Your task to perform on an android device: Search for logitech g pro on amazon, select the first entry, and add it to the cart. Image 0: 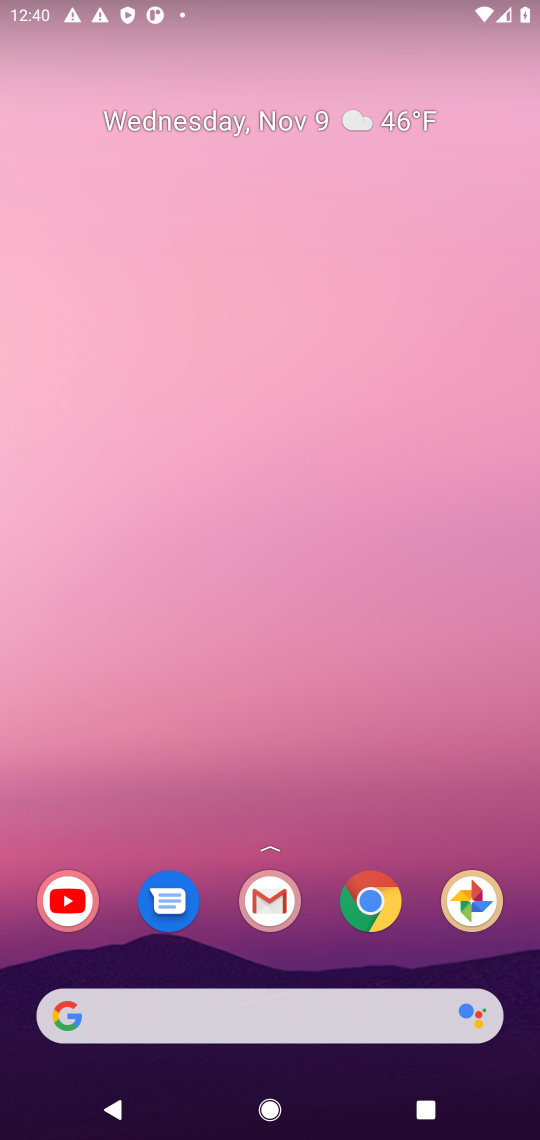
Step 0: click (386, 906)
Your task to perform on an android device: Search for logitech g pro on amazon, select the first entry, and add it to the cart. Image 1: 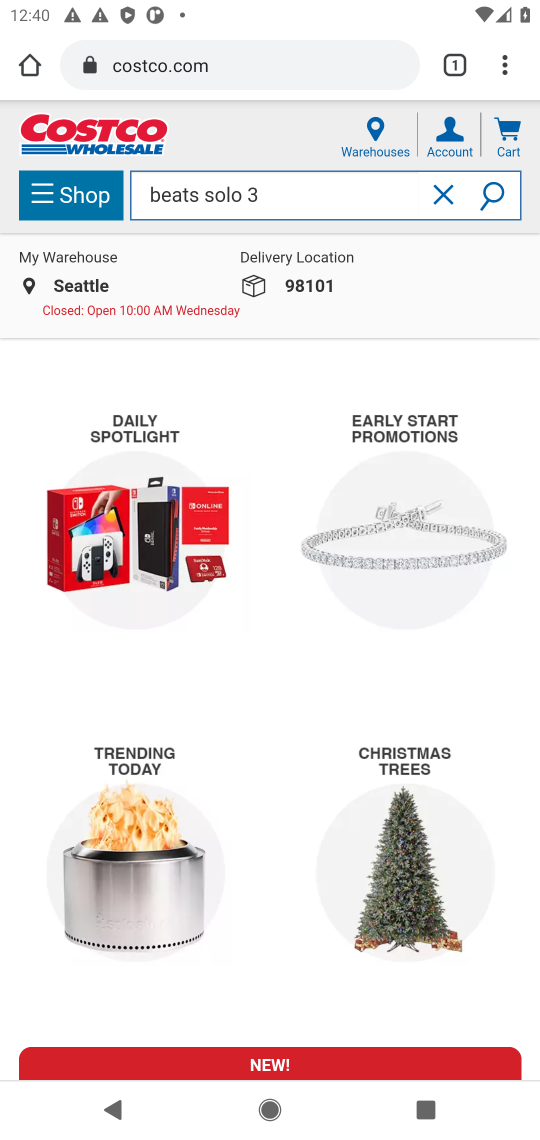
Step 1: click (234, 67)
Your task to perform on an android device: Search for logitech g pro on amazon, select the first entry, and add it to the cart. Image 2: 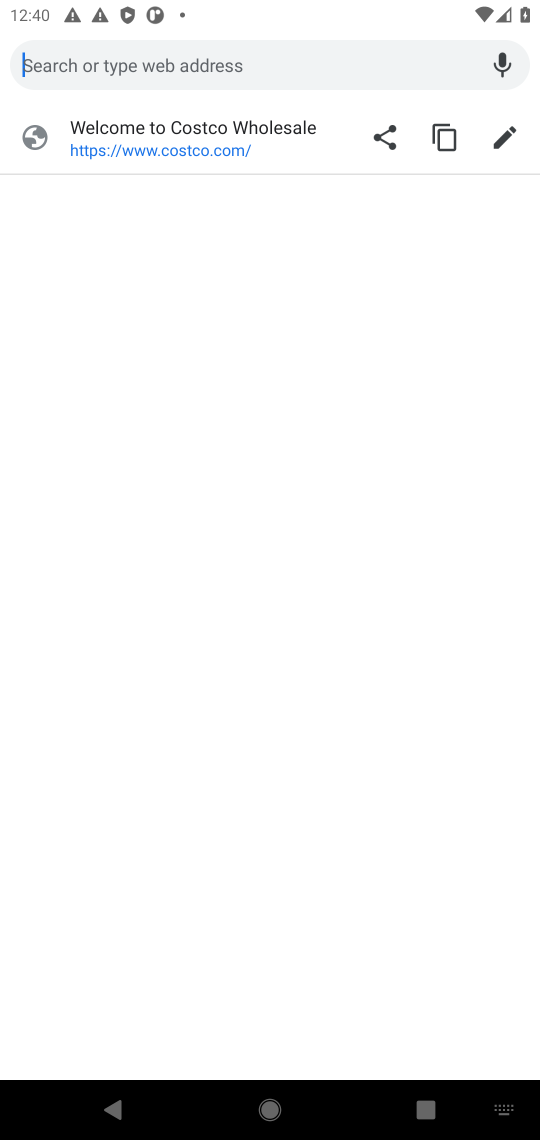
Step 2: type "amazon"
Your task to perform on an android device: Search for logitech g pro on amazon, select the first entry, and add it to the cart. Image 3: 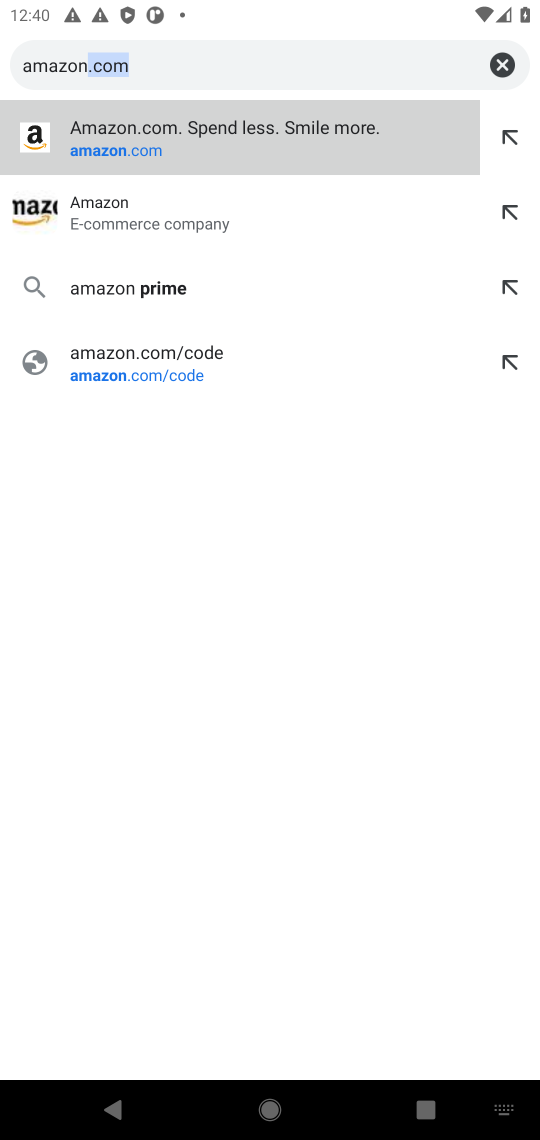
Step 3: click (242, 71)
Your task to perform on an android device: Search for logitech g pro on amazon, select the first entry, and add it to the cart. Image 4: 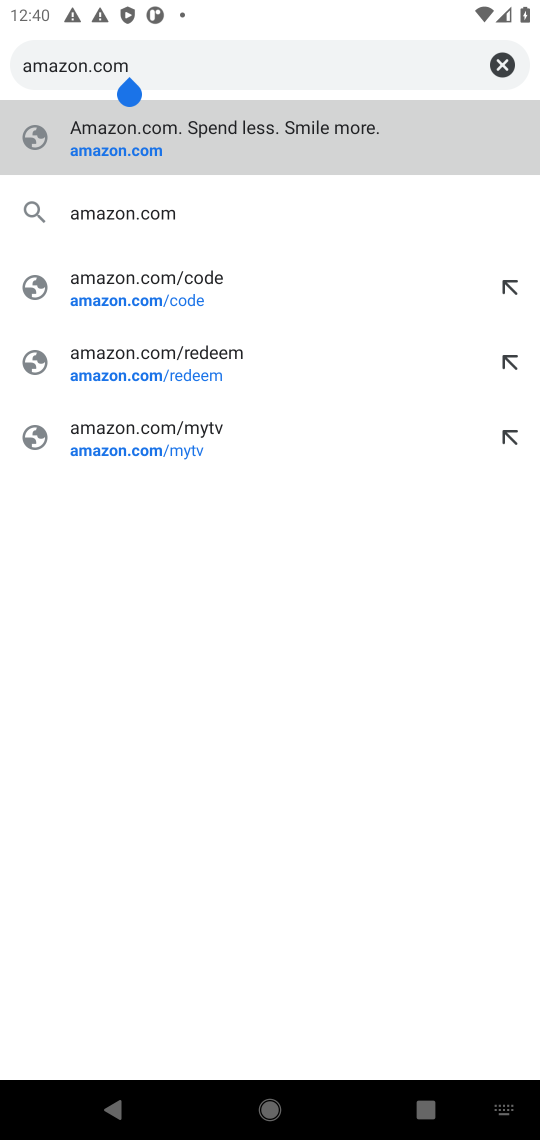
Step 4: click (168, 212)
Your task to perform on an android device: Search for logitech g pro on amazon, select the first entry, and add it to the cart. Image 5: 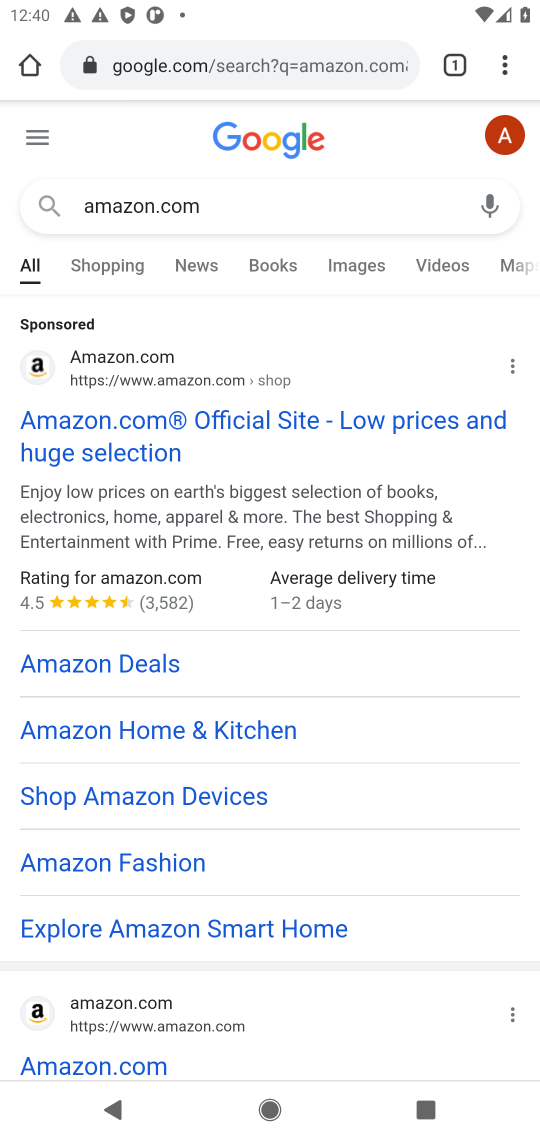
Step 5: click (136, 363)
Your task to perform on an android device: Search for logitech g pro on amazon, select the first entry, and add it to the cart. Image 6: 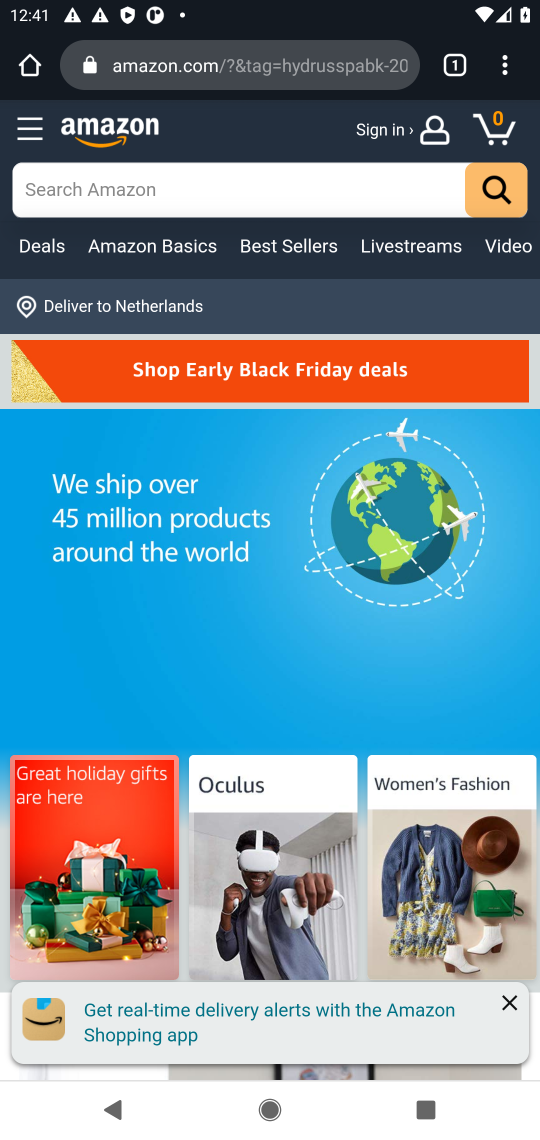
Step 6: click (286, 191)
Your task to perform on an android device: Search for logitech g pro on amazon, select the first entry, and add it to the cart. Image 7: 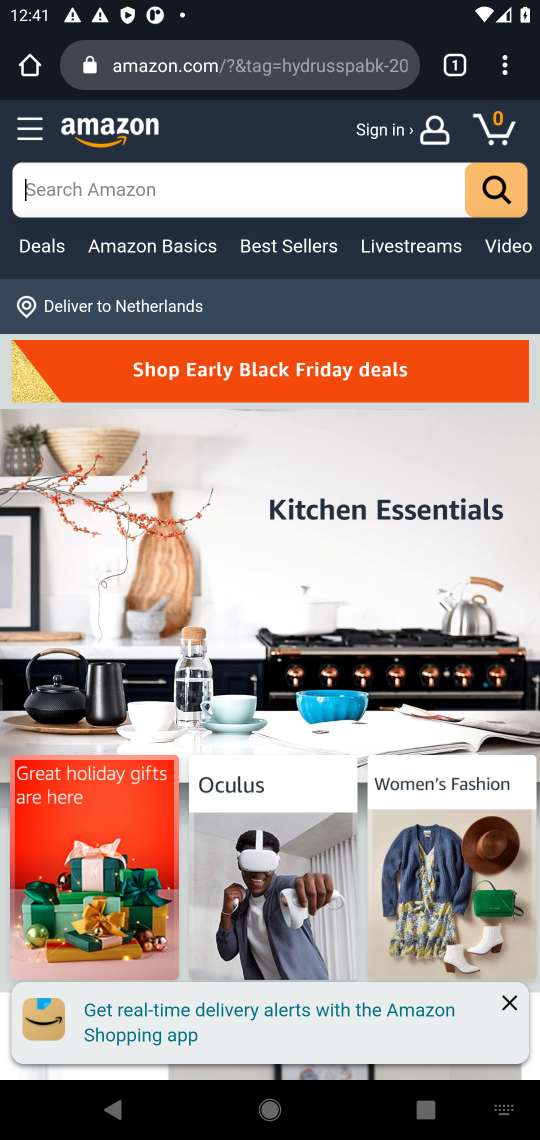
Step 7: type "logitech g pro"
Your task to perform on an android device: Search for logitech g pro on amazon, select the first entry, and add it to the cart. Image 8: 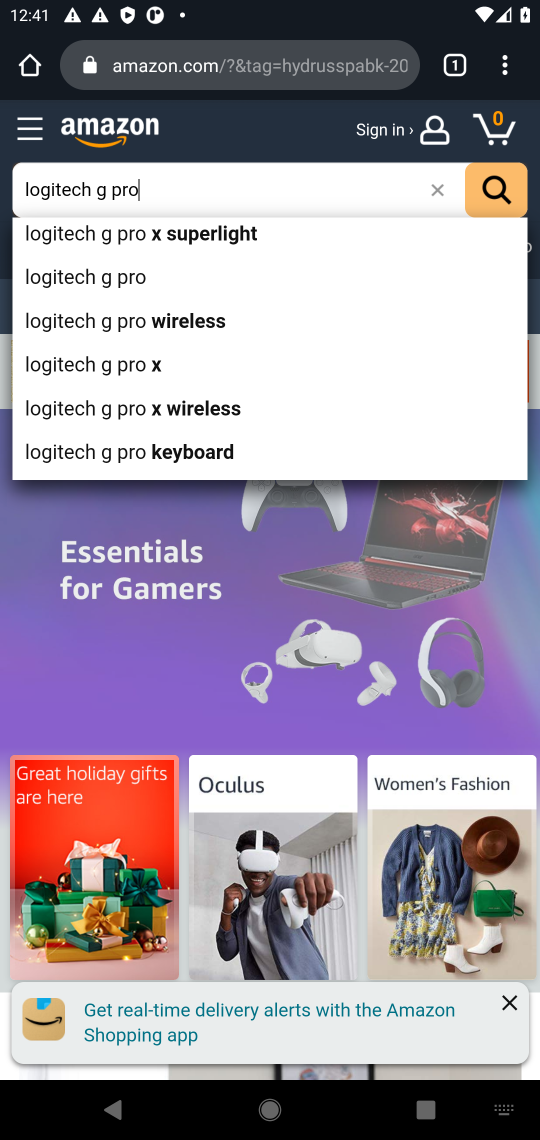
Step 8: press enter
Your task to perform on an android device: Search for logitech g pro on amazon, select the first entry, and add it to the cart. Image 9: 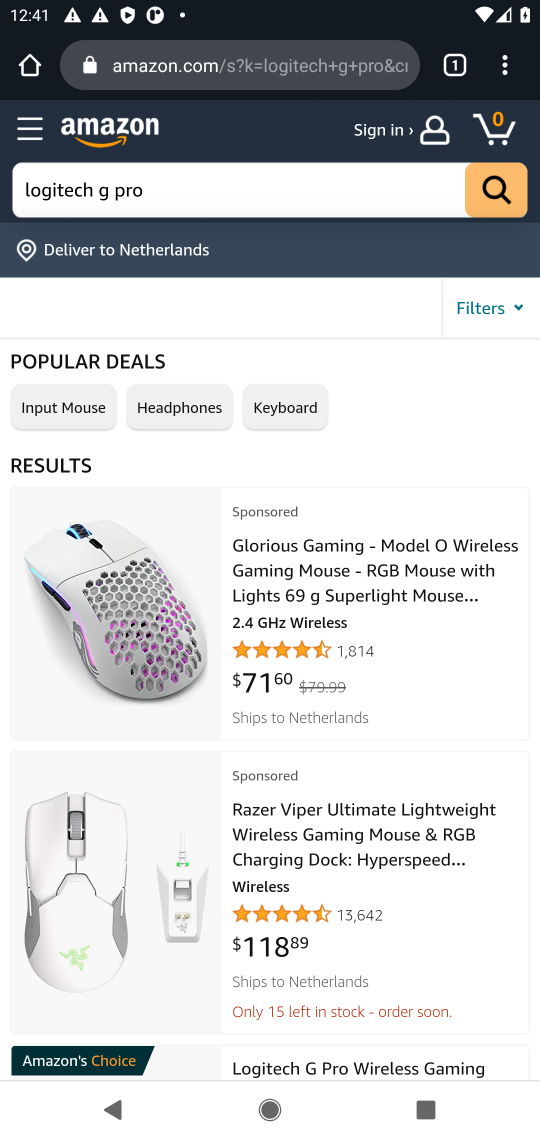
Step 9: drag from (478, 931) to (462, 510)
Your task to perform on an android device: Search for logitech g pro on amazon, select the first entry, and add it to the cart. Image 10: 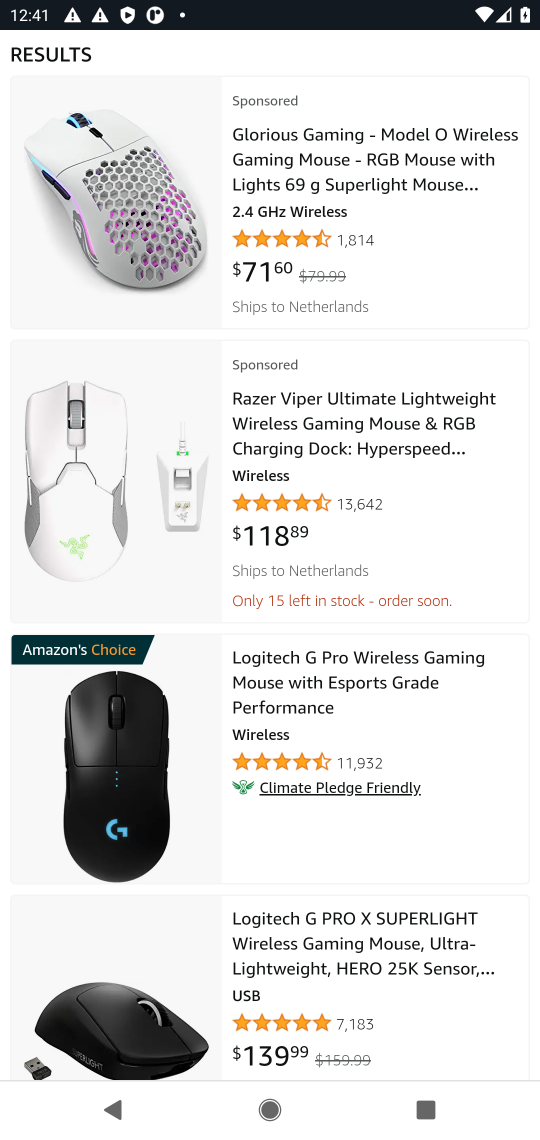
Step 10: click (115, 768)
Your task to perform on an android device: Search for logitech g pro on amazon, select the first entry, and add it to the cart. Image 11: 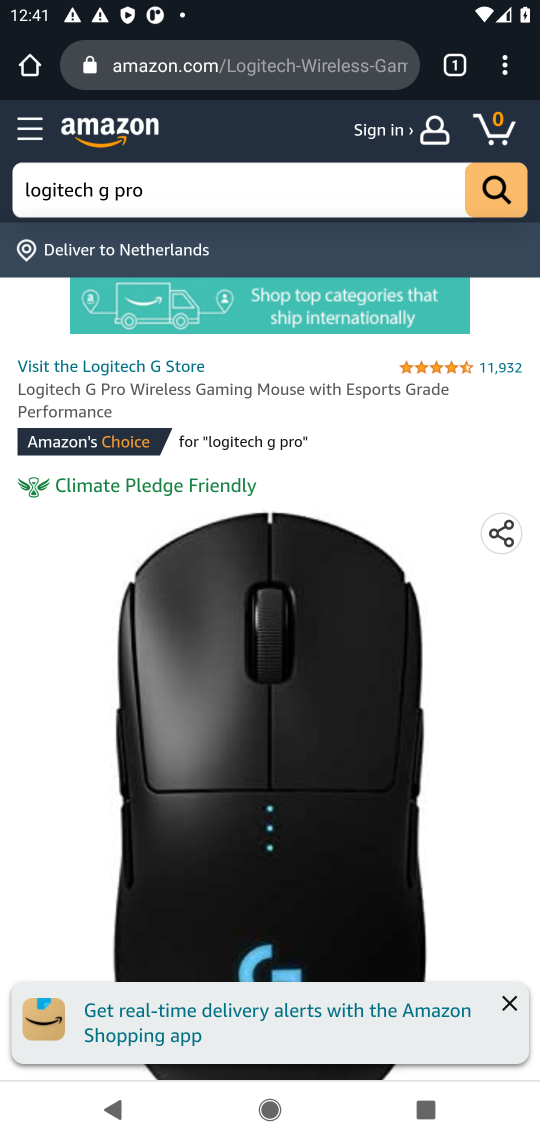
Step 11: drag from (426, 869) to (409, 294)
Your task to perform on an android device: Search for logitech g pro on amazon, select the first entry, and add it to the cart. Image 12: 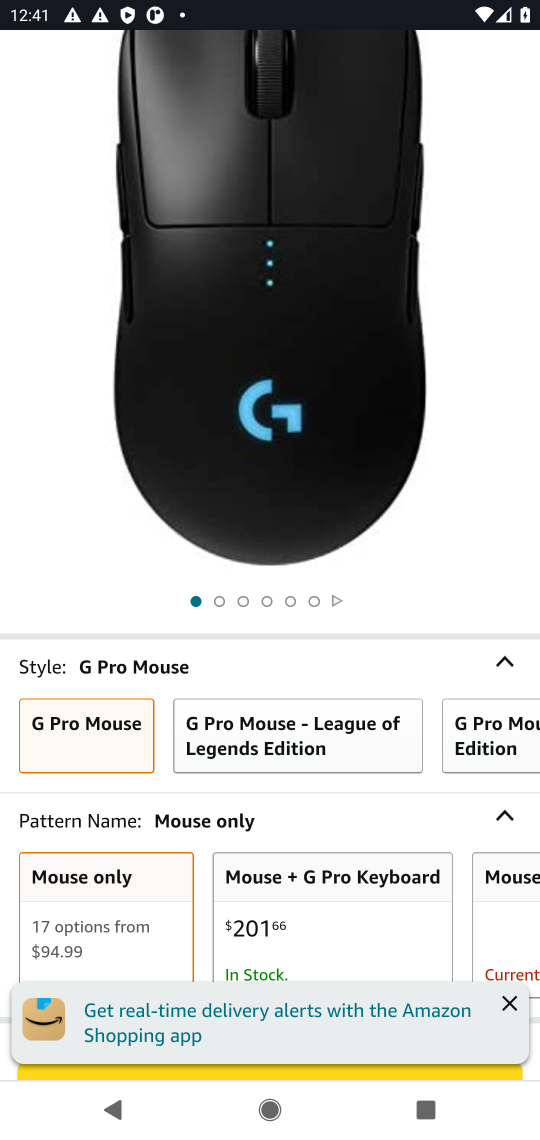
Step 12: drag from (392, 781) to (414, 144)
Your task to perform on an android device: Search for logitech g pro on amazon, select the first entry, and add it to the cart. Image 13: 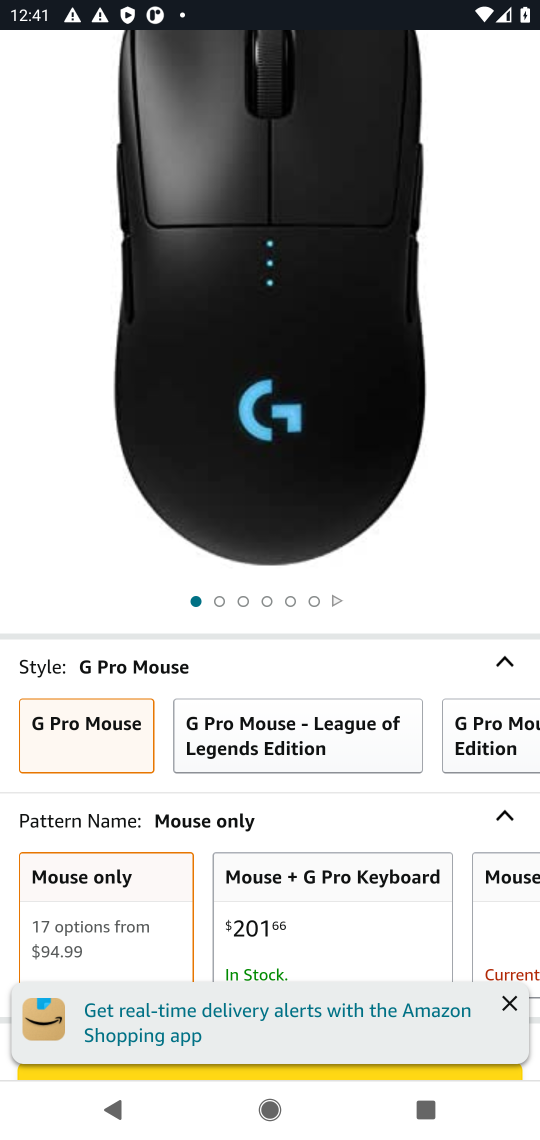
Step 13: drag from (359, 787) to (321, 256)
Your task to perform on an android device: Search for logitech g pro on amazon, select the first entry, and add it to the cart. Image 14: 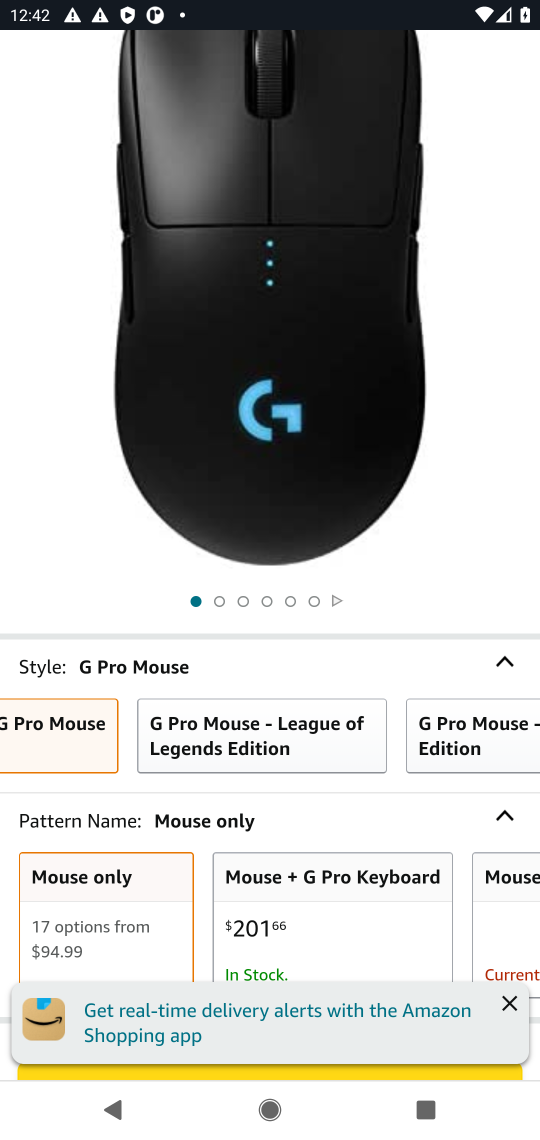
Step 14: click (511, 993)
Your task to perform on an android device: Search for logitech g pro on amazon, select the first entry, and add it to the cart. Image 15: 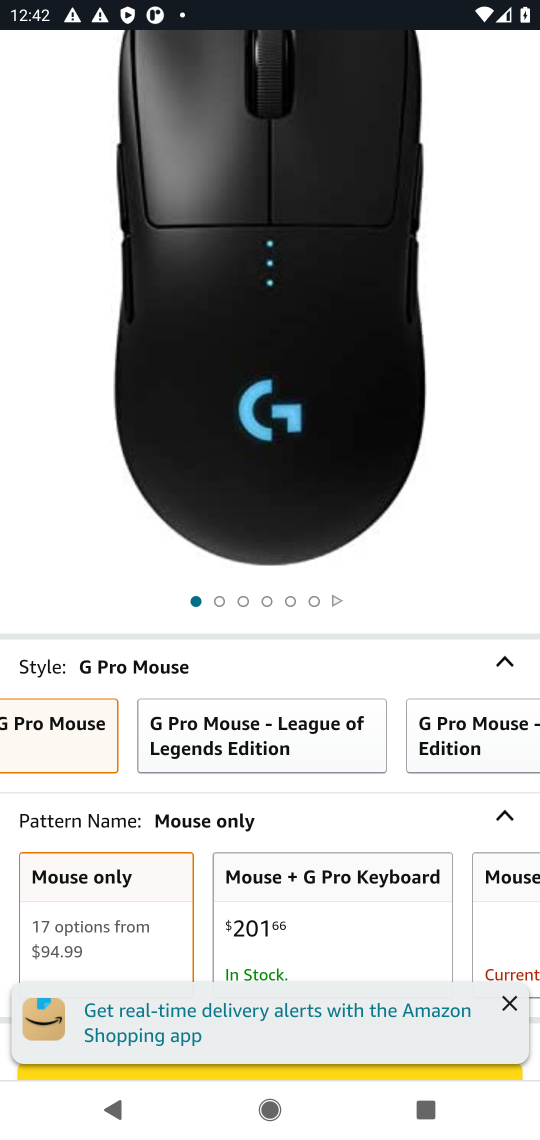
Step 15: drag from (423, 442) to (446, 291)
Your task to perform on an android device: Search for logitech g pro on amazon, select the first entry, and add it to the cart. Image 16: 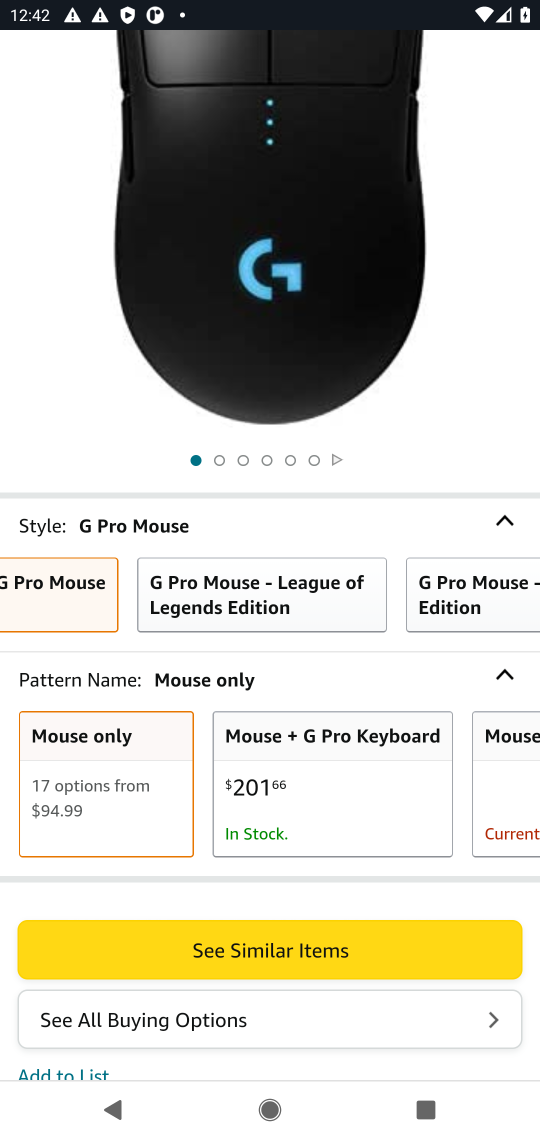
Step 16: press back button
Your task to perform on an android device: Search for logitech g pro on amazon, select the first entry, and add it to the cart. Image 17: 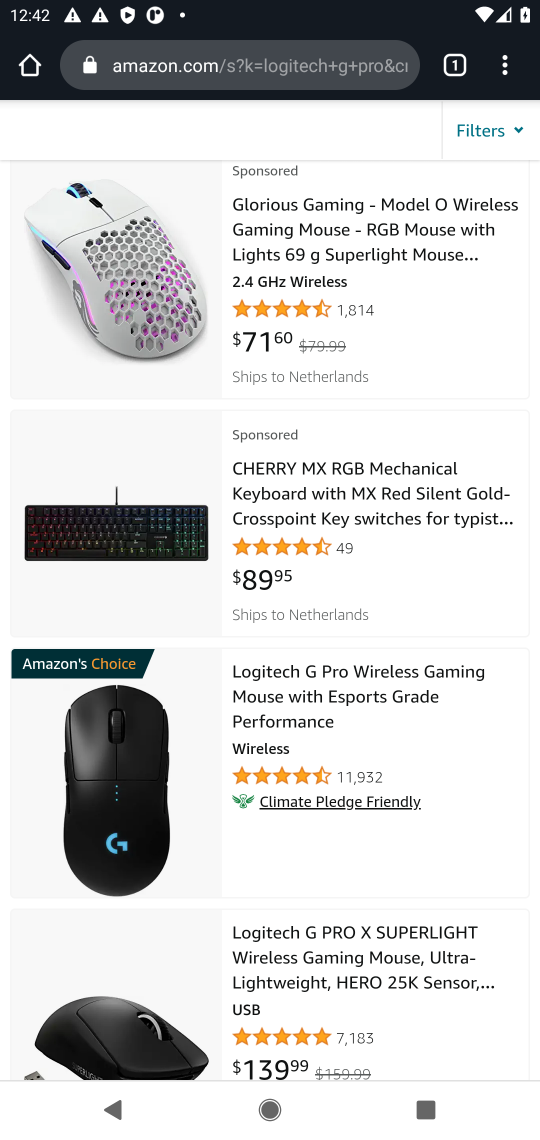
Step 17: drag from (443, 716) to (431, 240)
Your task to perform on an android device: Search for logitech g pro on amazon, select the first entry, and add it to the cart. Image 18: 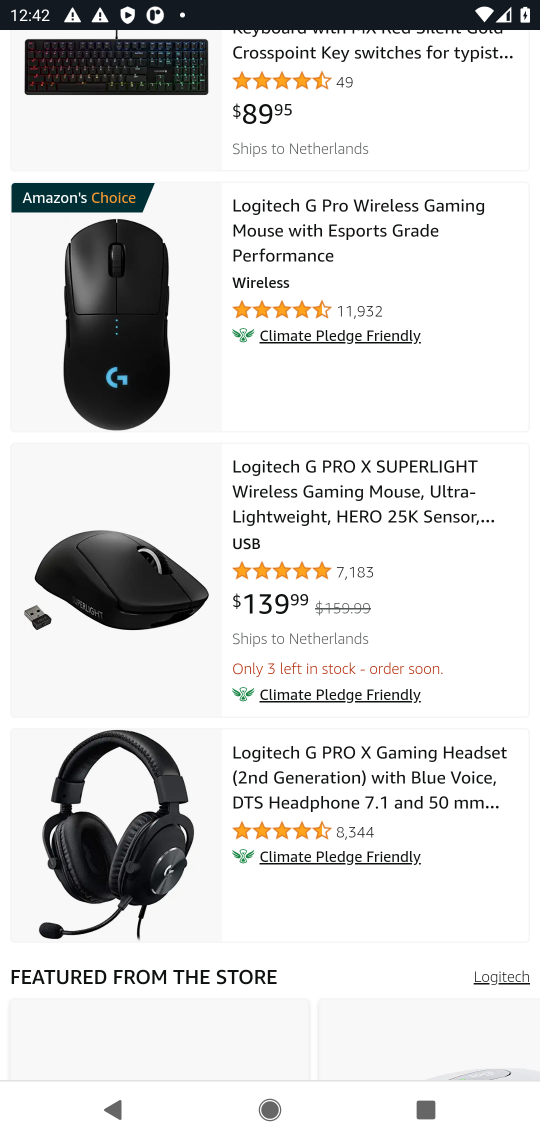
Step 18: click (159, 526)
Your task to perform on an android device: Search for logitech g pro on amazon, select the first entry, and add it to the cart. Image 19: 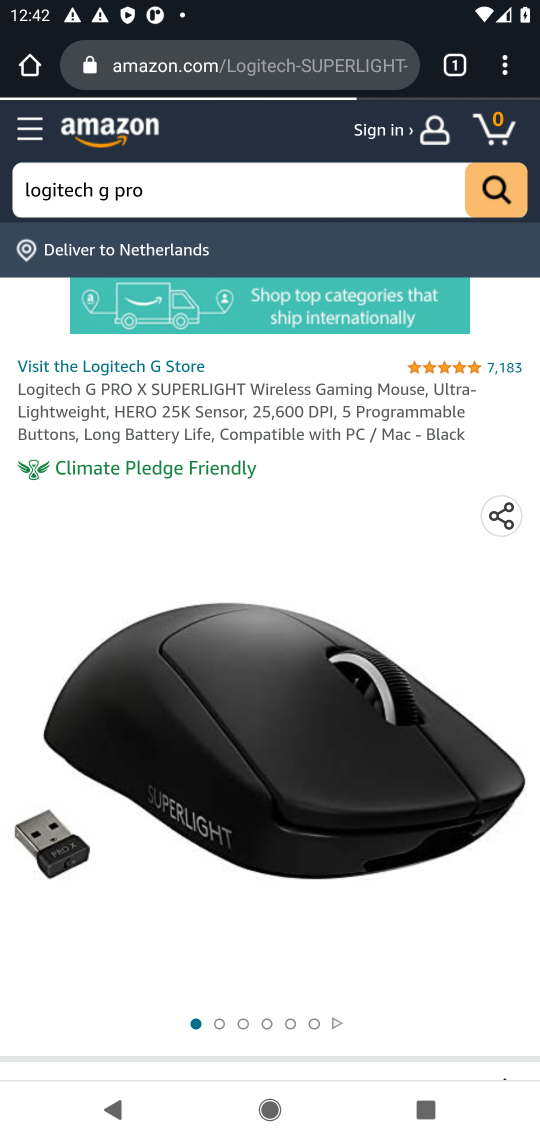
Step 19: drag from (479, 709) to (445, 204)
Your task to perform on an android device: Search for logitech g pro on amazon, select the first entry, and add it to the cart. Image 20: 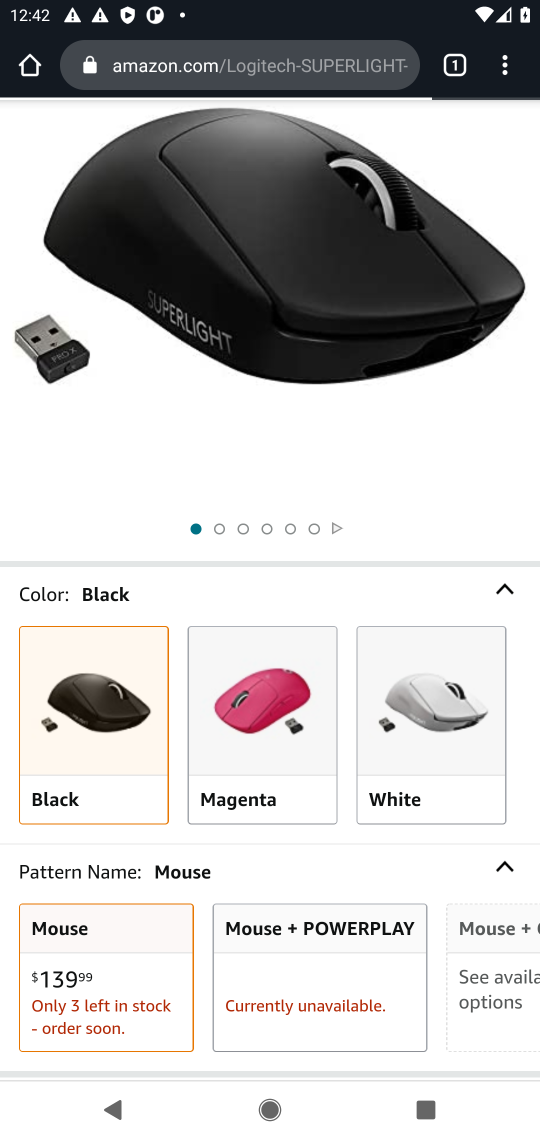
Step 20: drag from (497, 913) to (525, 249)
Your task to perform on an android device: Search for logitech g pro on amazon, select the first entry, and add it to the cart. Image 21: 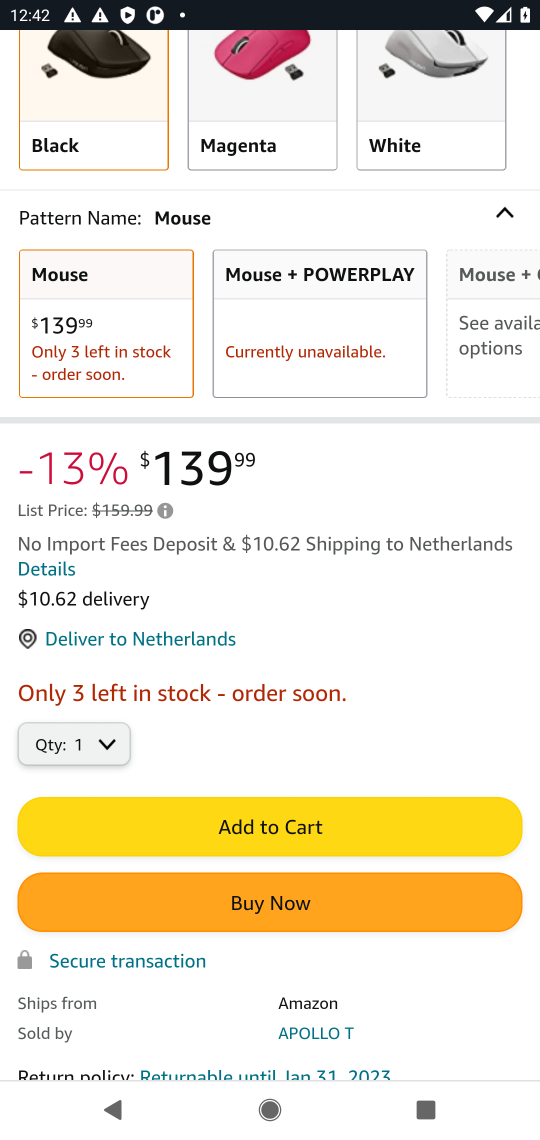
Step 21: click (338, 817)
Your task to perform on an android device: Search for logitech g pro on amazon, select the first entry, and add it to the cart. Image 22: 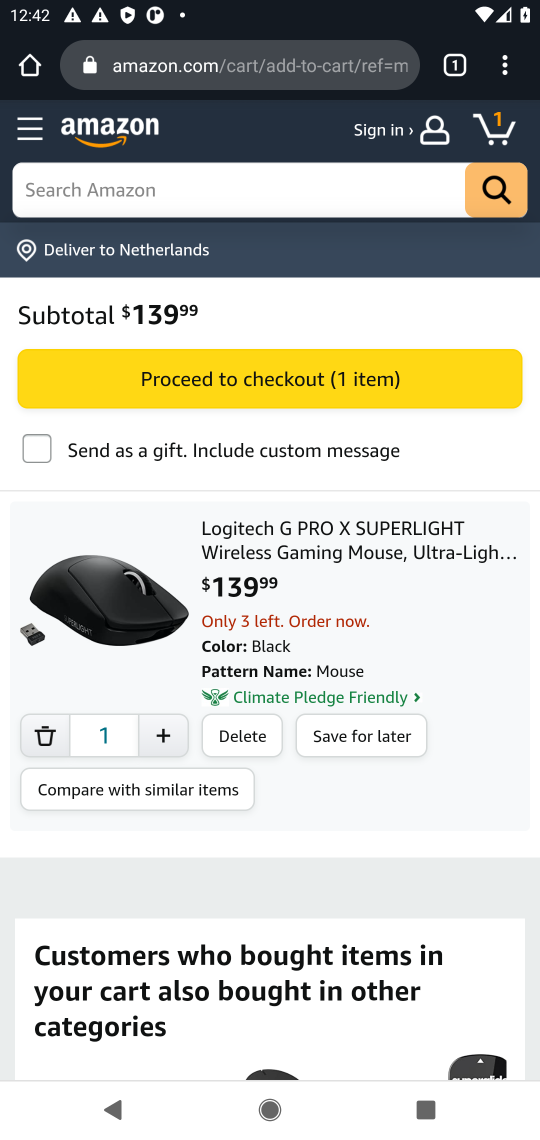
Step 22: task complete